Your task to perform on an android device: turn off priority inbox in the gmail app Image 0: 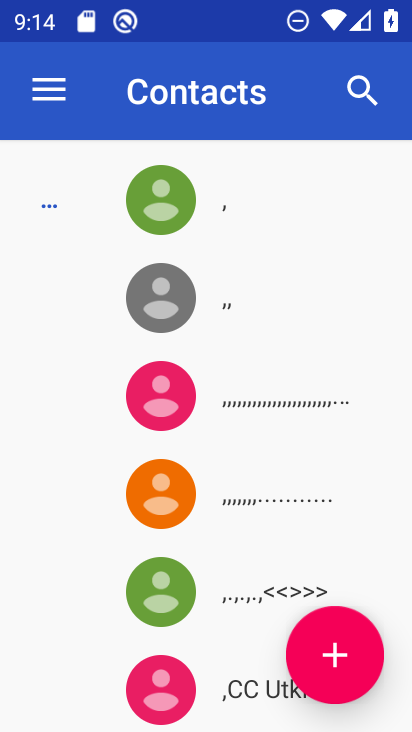
Step 0: press home button
Your task to perform on an android device: turn off priority inbox in the gmail app Image 1: 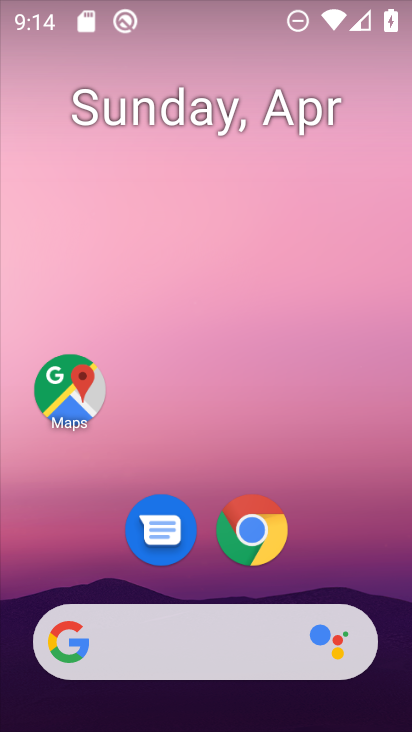
Step 1: drag from (385, 583) to (389, 5)
Your task to perform on an android device: turn off priority inbox in the gmail app Image 2: 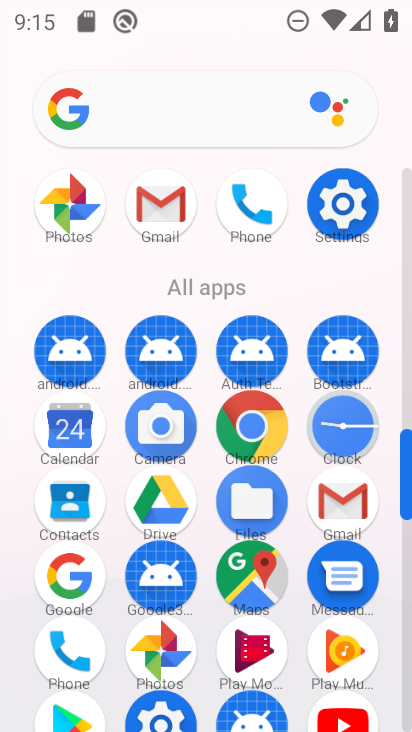
Step 2: click (155, 207)
Your task to perform on an android device: turn off priority inbox in the gmail app Image 3: 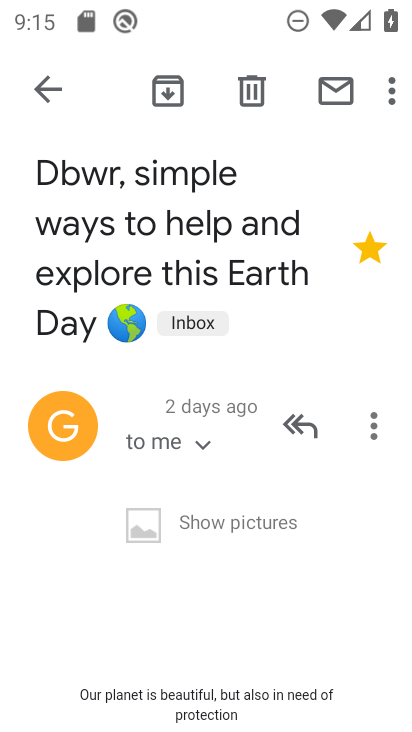
Step 3: click (54, 88)
Your task to perform on an android device: turn off priority inbox in the gmail app Image 4: 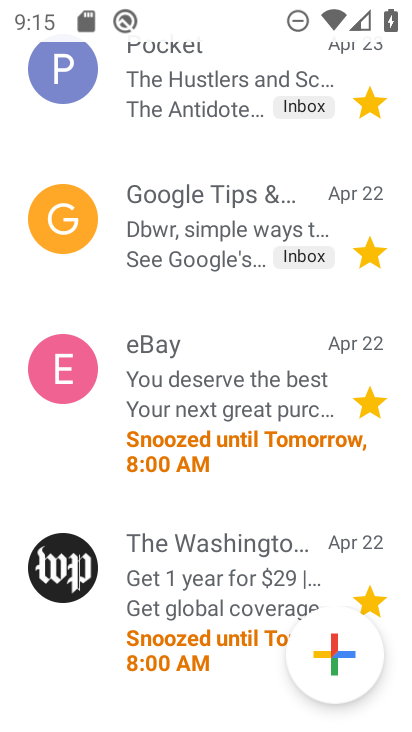
Step 4: drag from (229, 176) to (246, 587)
Your task to perform on an android device: turn off priority inbox in the gmail app Image 5: 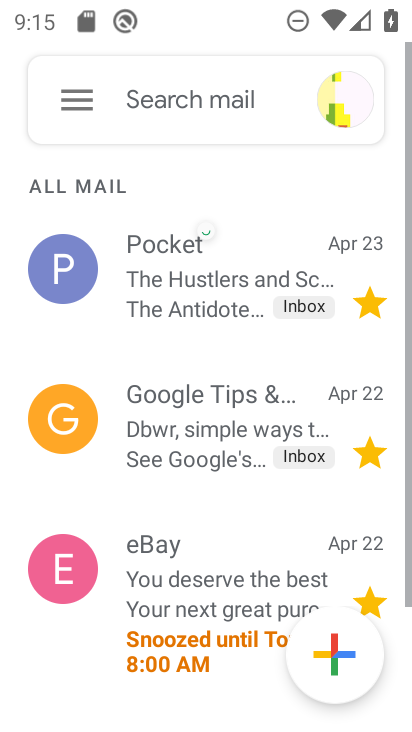
Step 5: click (77, 96)
Your task to perform on an android device: turn off priority inbox in the gmail app Image 6: 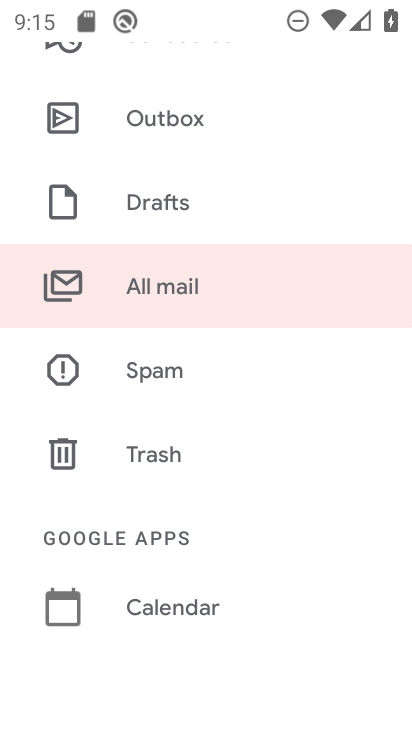
Step 6: drag from (227, 529) to (241, 100)
Your task to perform on an android device: turn off priority inbox in the gmail app Image 7: 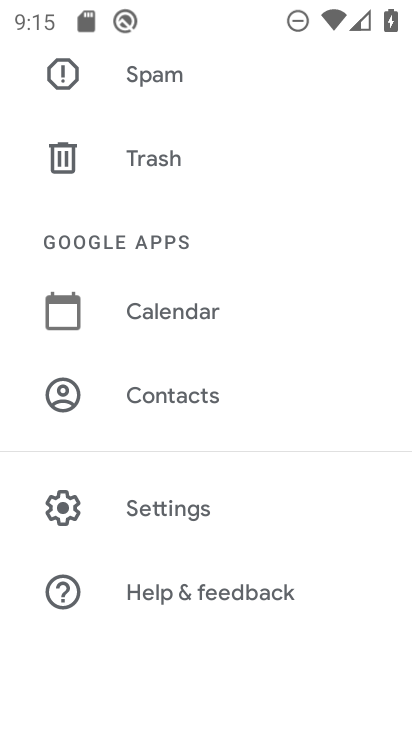
Step 7: click (162, 504)
Your task to perform on an android device: turn off priority inbox in the gmail app Image 8: 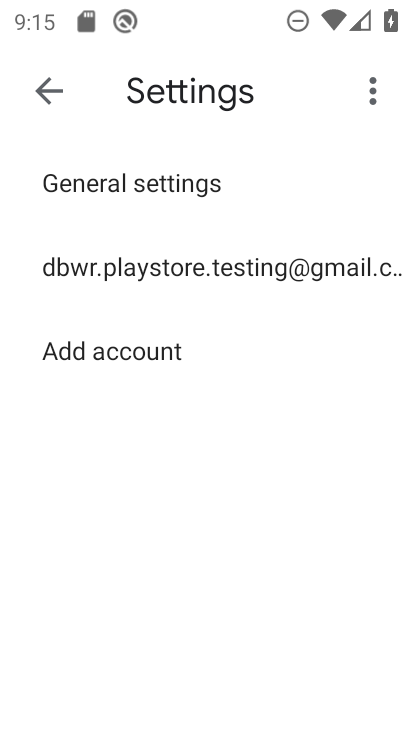
Step 8: click (129, 268)
Your task to perform on an android device: turn off priority inbox in the gmail app Image 9: 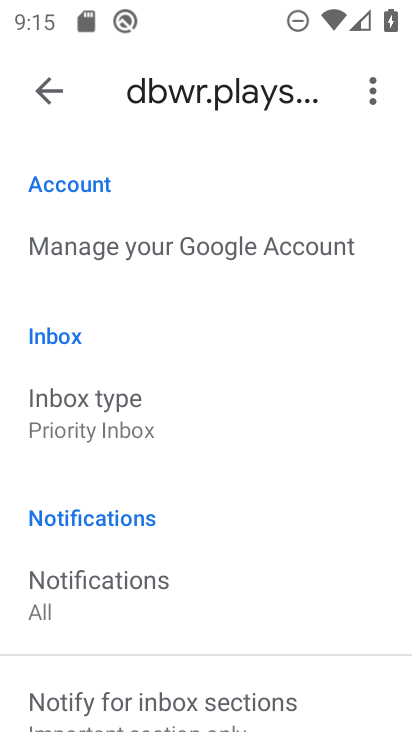
Step 9: click (110, 420)
Your task to perform on an android device: turn off priority inbox in the gmail app Image 10: 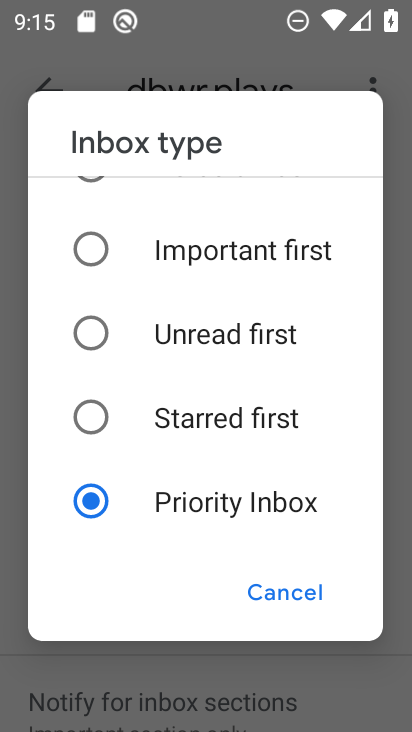
Step 10: click (89, 418)
Your task to perform on an android device: turn off priority inbox in the gmail app Image 11: 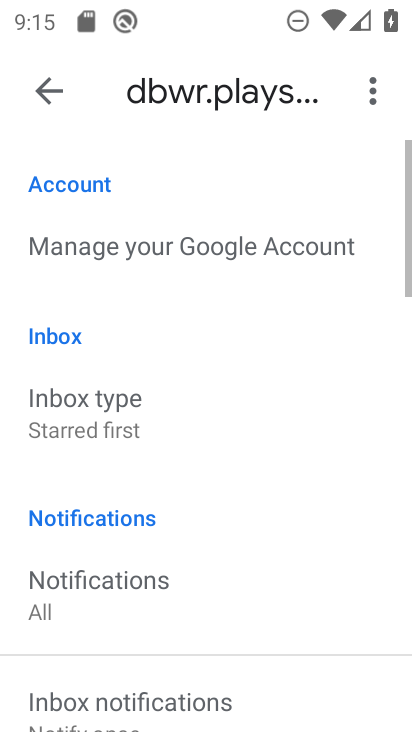
Step 11: task complete